Your task to perform on an android device: Open Google Chrome and click the shortcut for Amazon.com Image 0: 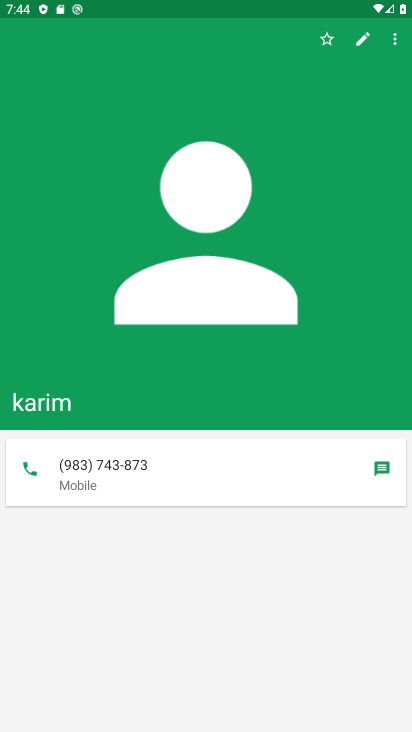
Step 0: press home button
Your task to perform on an android device: Open Google Chrome and click the shortcut for Amazon.com Image 1: 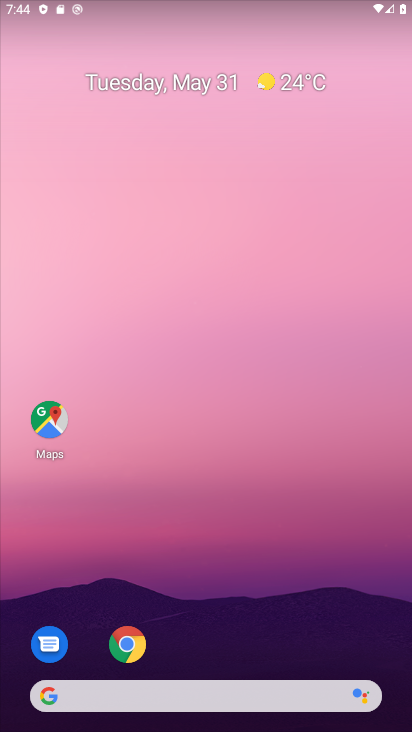
Step 1: drag from (329, 612) to (369, 235)
Your task to perform on an android device: Open Google Chrome and click the shortcut for Amazon.com Image 2: 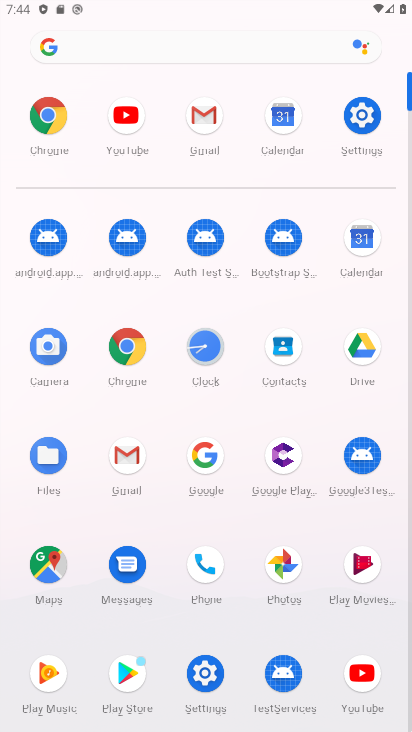
Step 2: click (138, 360)
Your task to perform on an android device: Open Google Chrome and click the shortcut for Amazon.com Image 3: 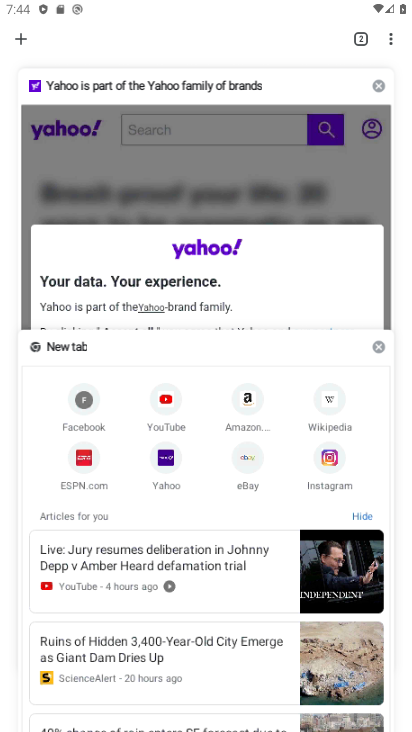
Step 3: click (15, 39)
Your task to perform on an android device: Open Google Chrome and click the shortcut for Amazon.com Image 4: 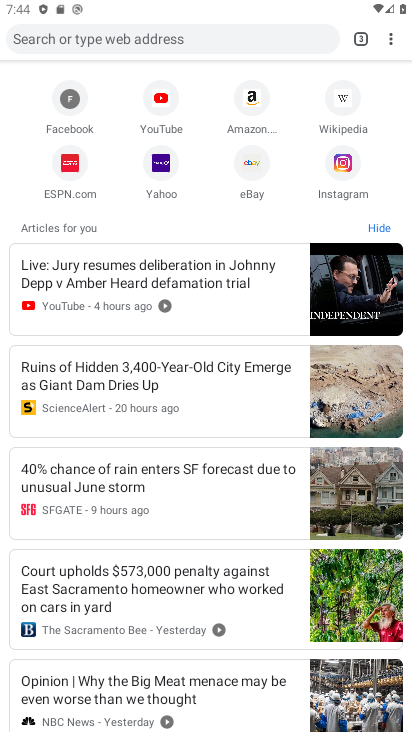
Step 4: click (252, 117)
Your task to perform on an android device: Open Google Chrome and click the shortcut for Amazon.com Image 5: 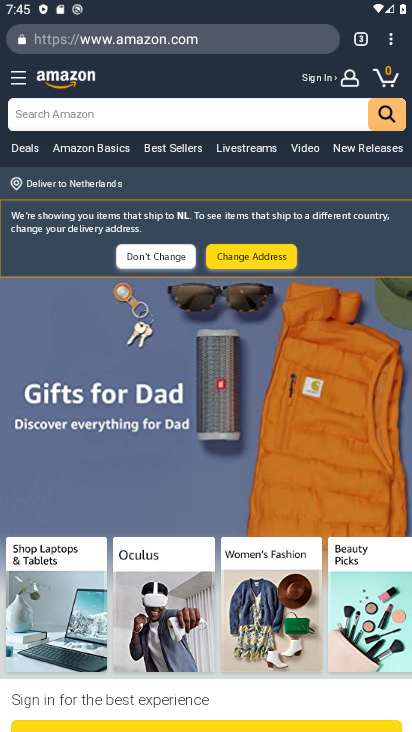
Step 5: task complete